Your task to perform on an android device: Go to display settings Image 0: 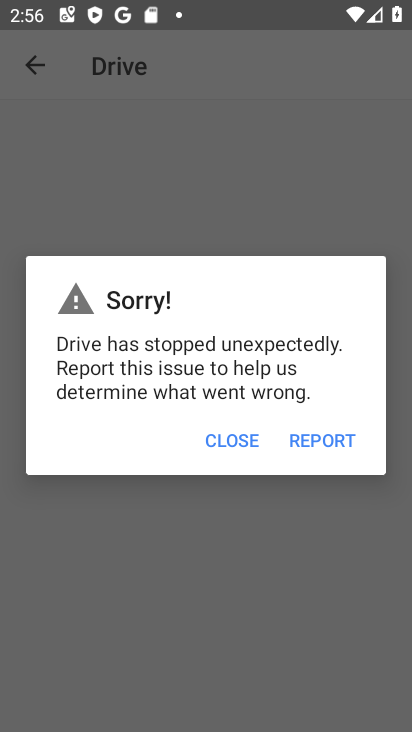
Step 0: press home button
Your task to perform on an android device: Go to display settings Image 1: 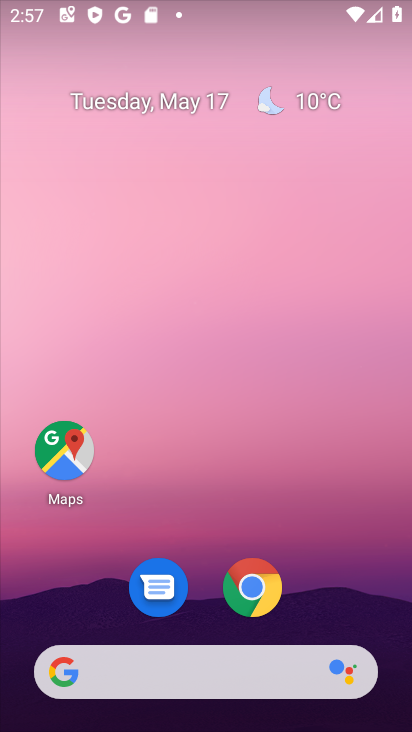
Step 1: drag from (316, 591) to (243, 45)
Your task to perform on an android device: Go to display settings Image 2: 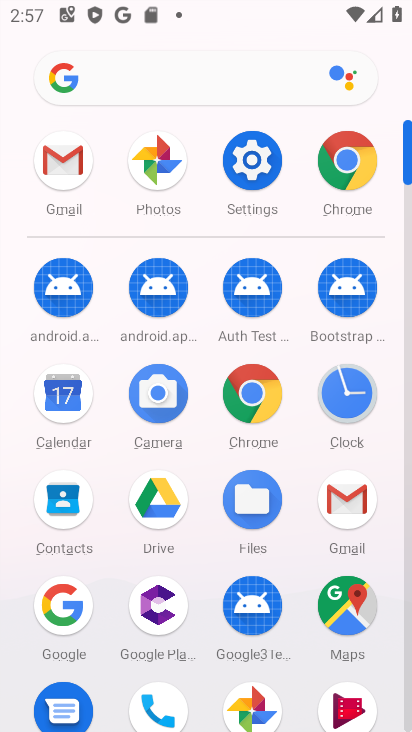
Step 2: drag from (14, 569) to (23, 243)
Your task to perform on an android device: Go to display settings Image 3: 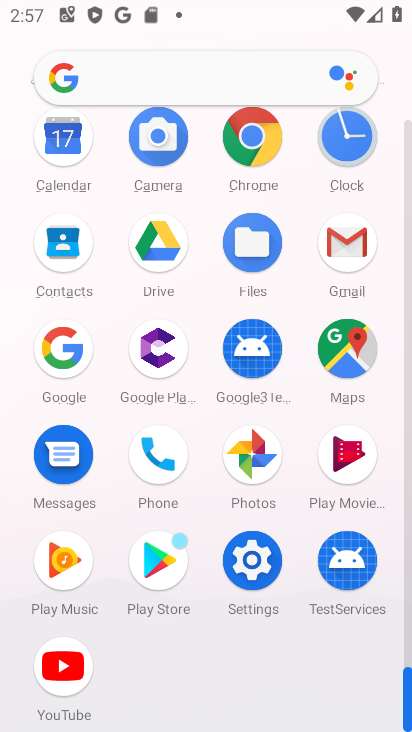
Step 3: click (254, 560)
Your task to perform on an android device: Go to display settings Image 4: 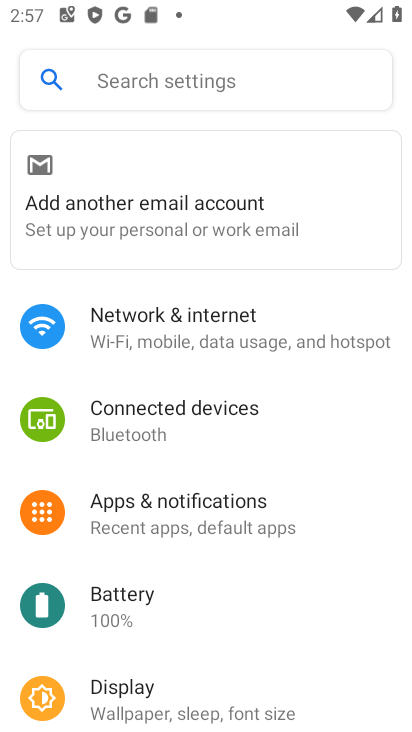
Step 4: click (192, 695)
Your task to perform on an android device: Go to display settings Image 5: 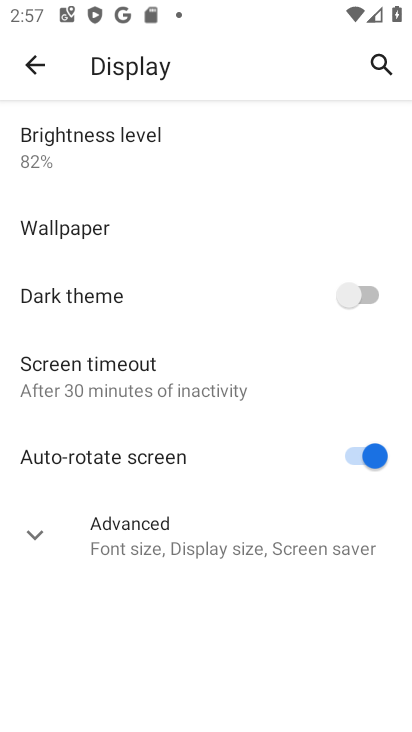
Step 5: click (44, 532)
Your task to perform on an android device: Go to display settings Image 6: 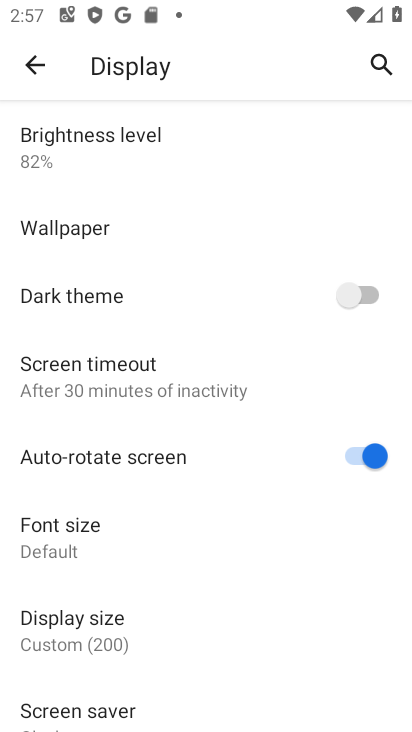
Step 6: task complete